Your task to perform on an android device: Go to Google Image 0: 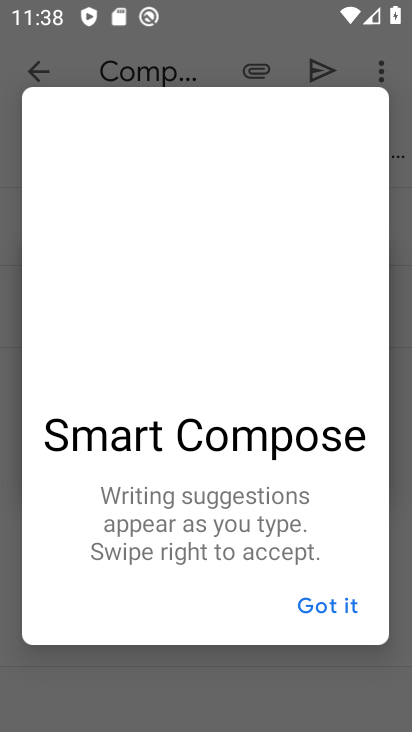
Step 0: press home button
Your task to perform on an android device: Go to Google Image 1: 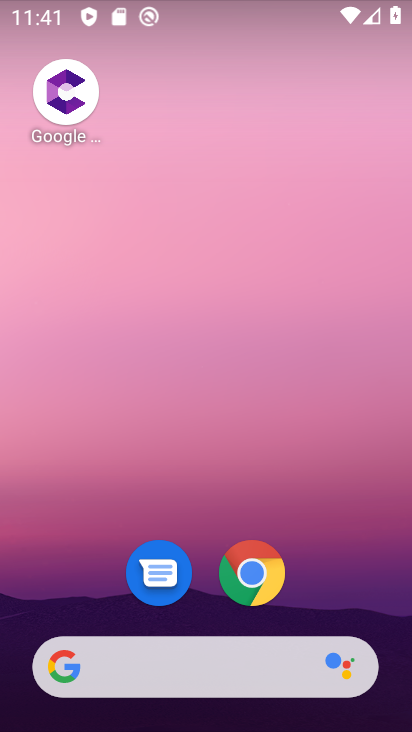
Step 1: drag from (344, 376) to (271, 6)
Your task to perform on an android device: Go to Google Image 2: 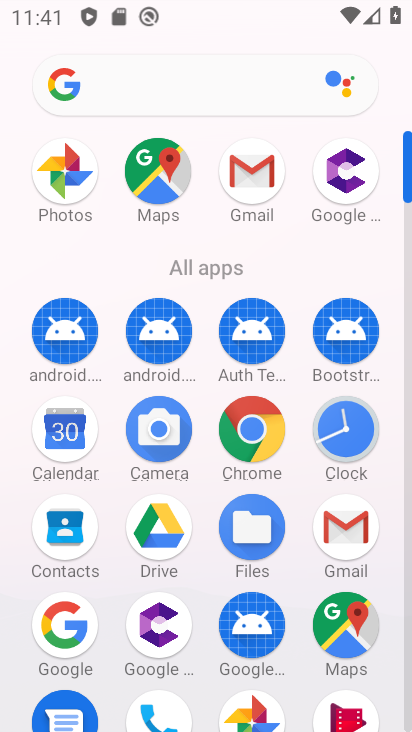
Step 2: drag from (391, 587) to (392, 271)
Your task to perform on an android device: Go to Google Image 3: 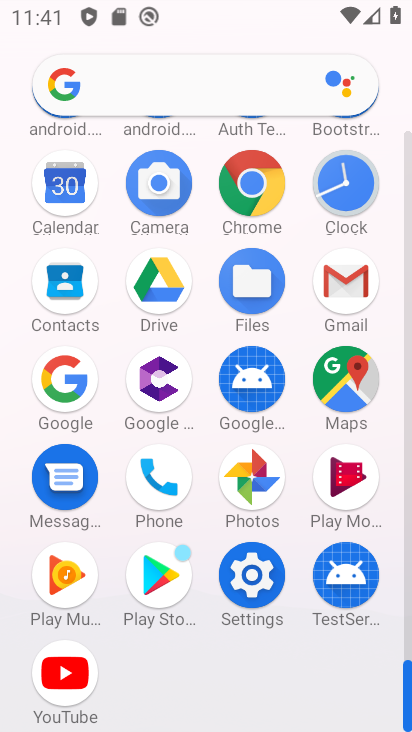
Step 3: click (69, 392)
Your task to perform on an android device: Go to Google Image 4: 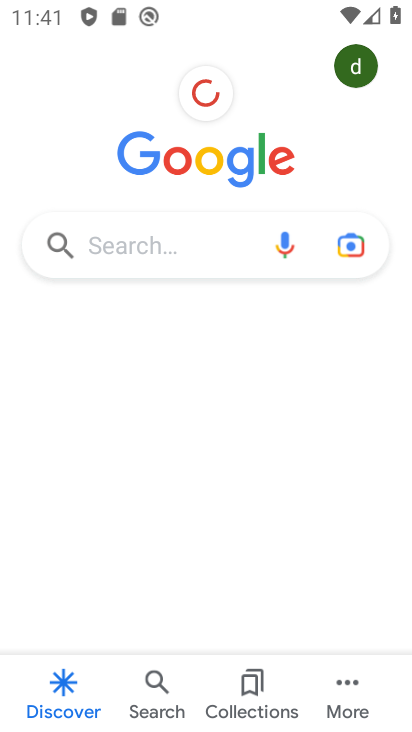
Step 4: task complete